Your task to perform on an android device: Show me popular games on the Play Store Image 0: 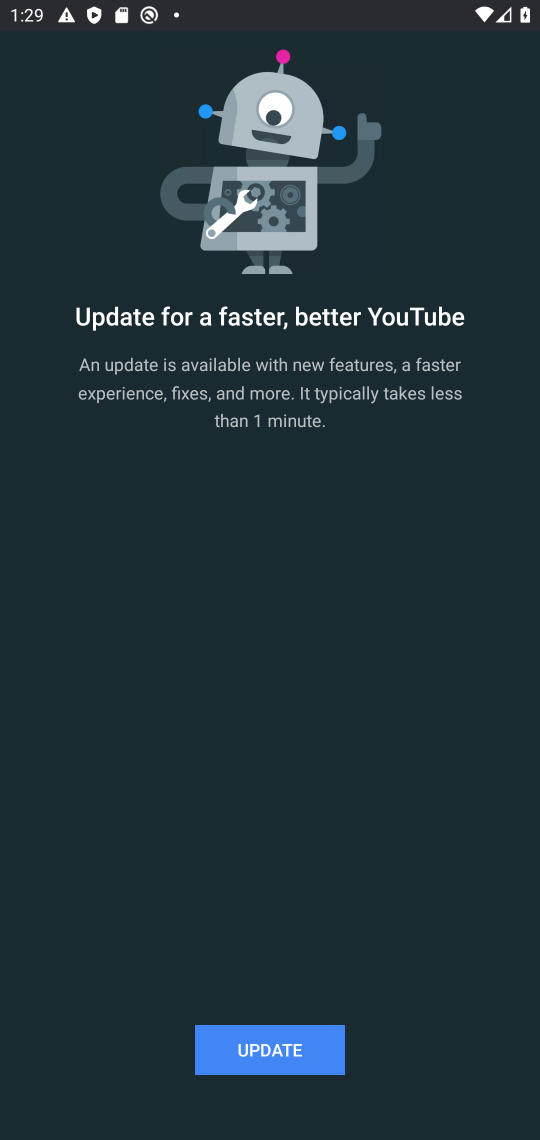
Step 0: press home button
Your task to perform on an android device: Show me popular games on the Play Store Image 1: 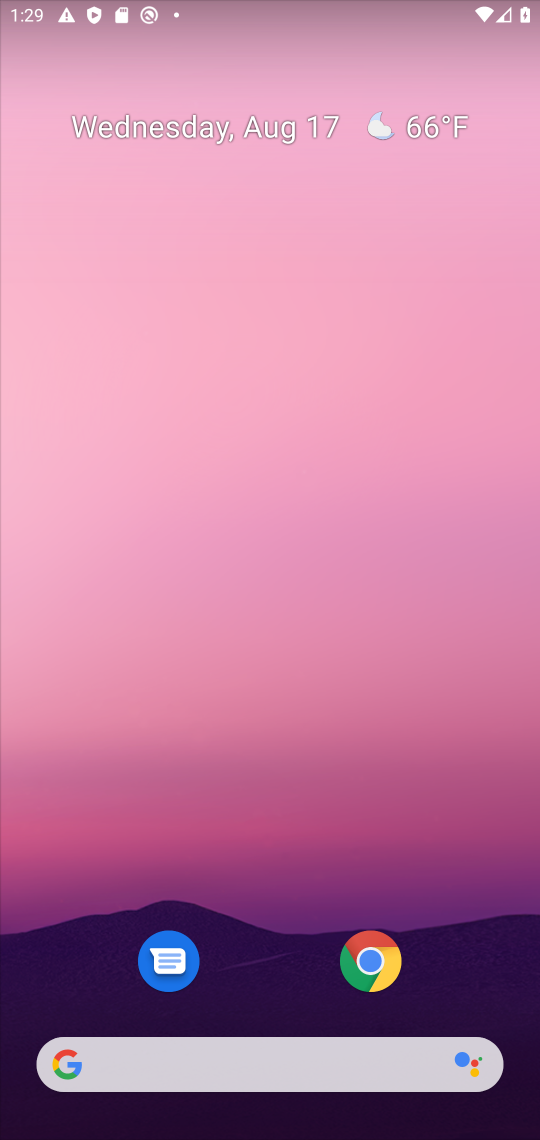
Step 1: drag from (246, 933) to (258, 173)
Your task to perform on an android device: Show me popular games on the Play Store Image 2: 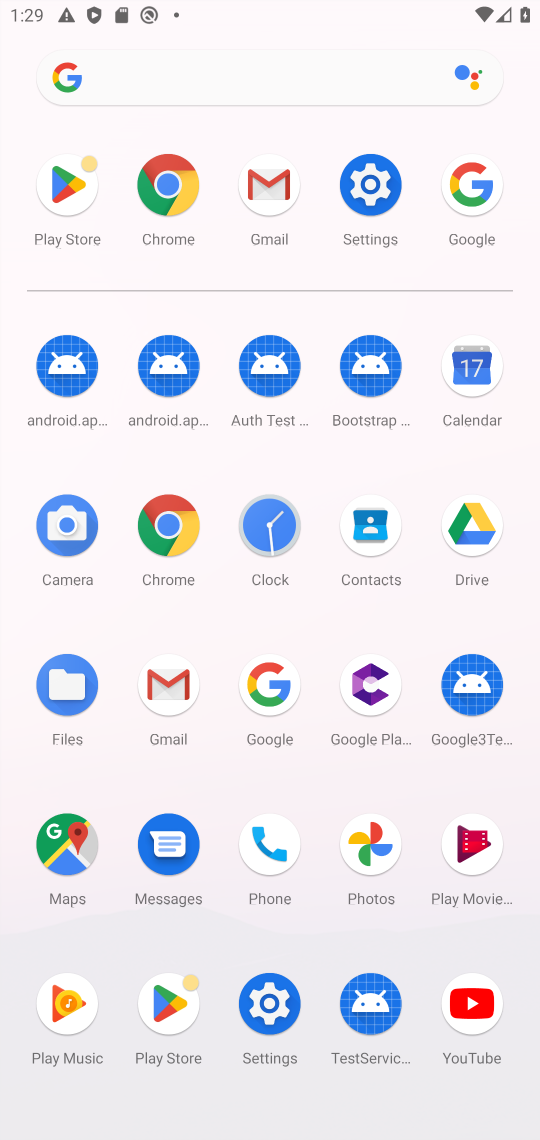
Step 2: click (195, 987)
Your task to perform on an android device: Show me popular games on the Play Store Image 3: 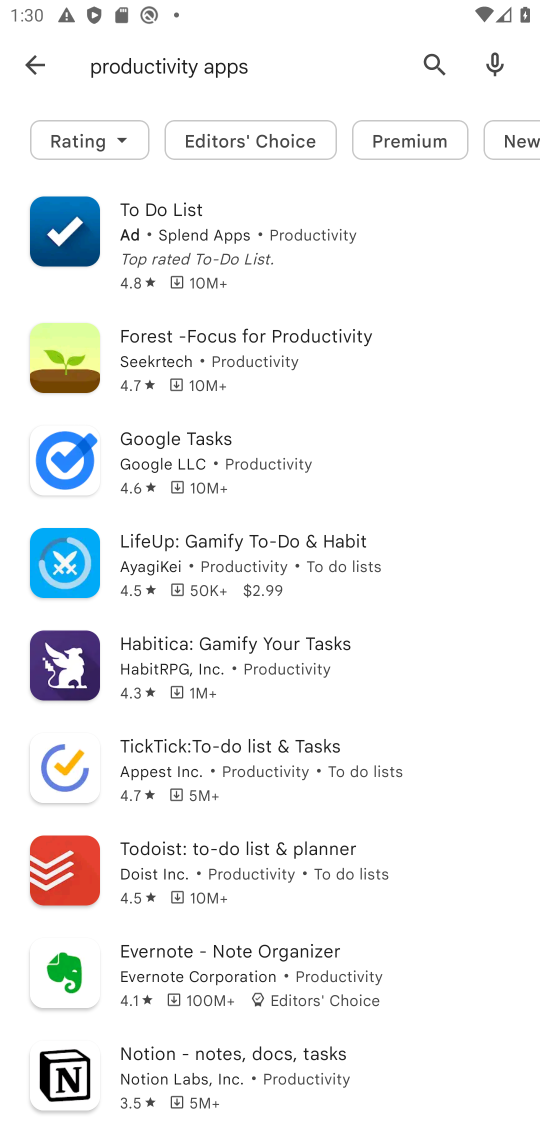
Step 3: click (30, 69)
Your task to perform on an android device: Show me popular games on the Play Store Image 4: 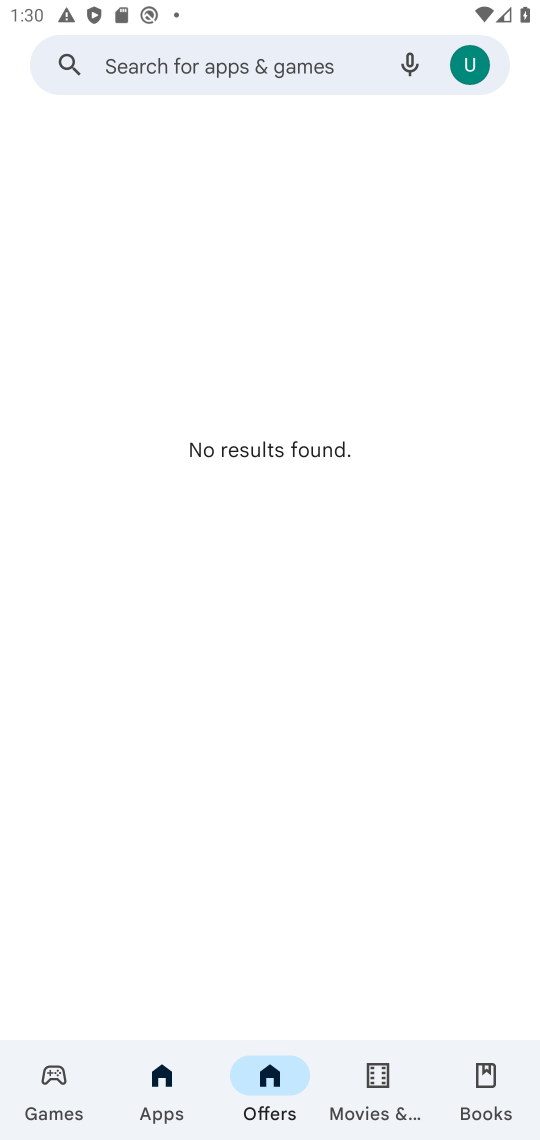
Step 4: click (68, 1088)
Your task to perform on an android device: Show me popular games on the Play Store Image 5: 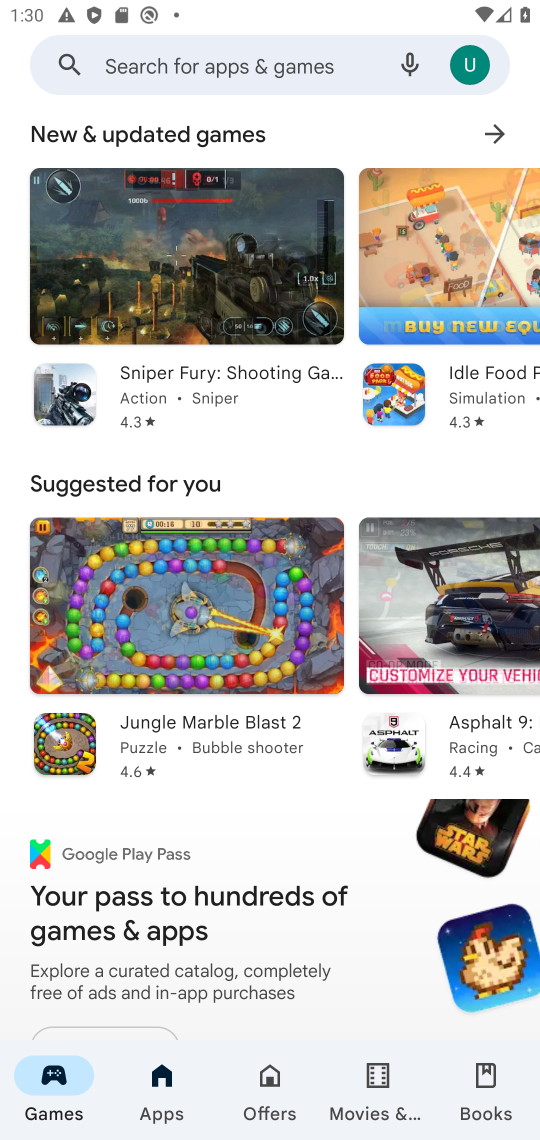
Step 5: task complete